Your task to perform on an android device: Turn off the flashlight Image 0: 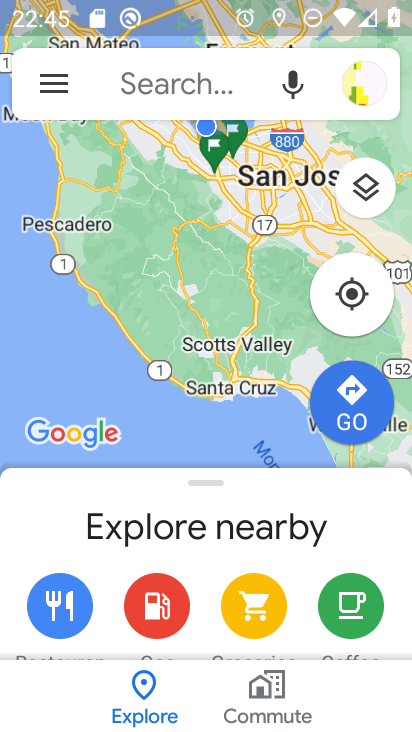
Step 0: drag from (171, 527) to (204, 152)
Your task to perform on an android device: Turn off the flashlight Image 1: 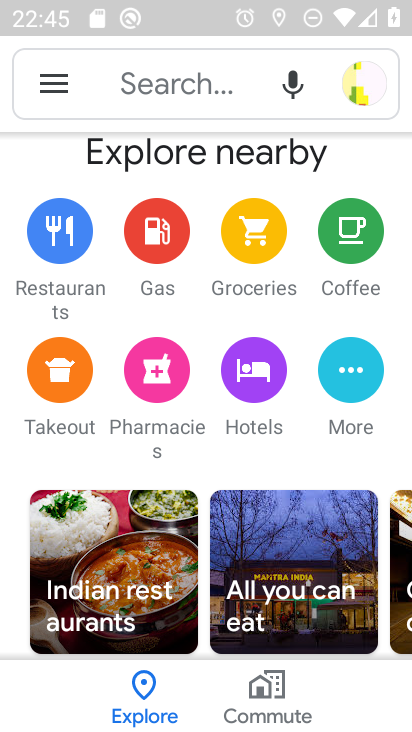
Step 1: press home button
Your task to perform on an android device: Turn off the flashlight Image 2: 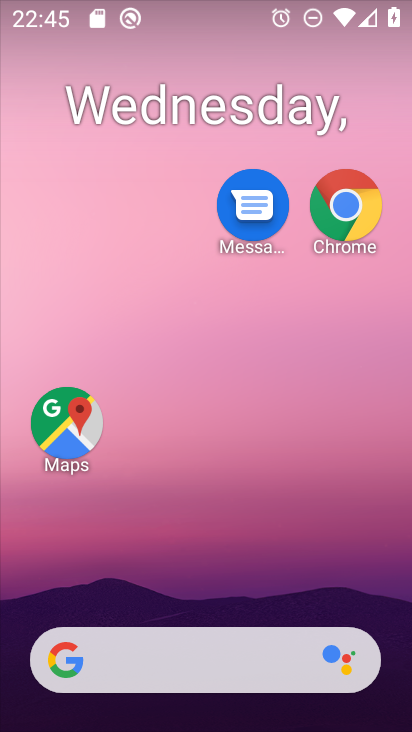
Step 2: drag from (216, 539) to (288, 125)
Your task to perform on an android device: Turn off the flashlight Image 3: 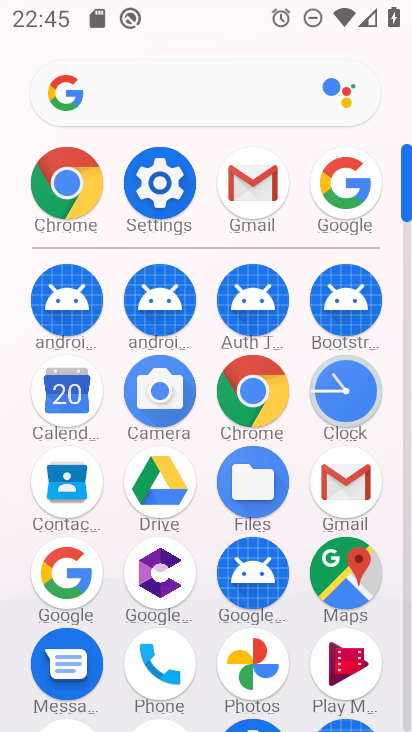
Step 3: click (158, 165)
Your task to perform on an android device: Turn off the flashlight Image 4: 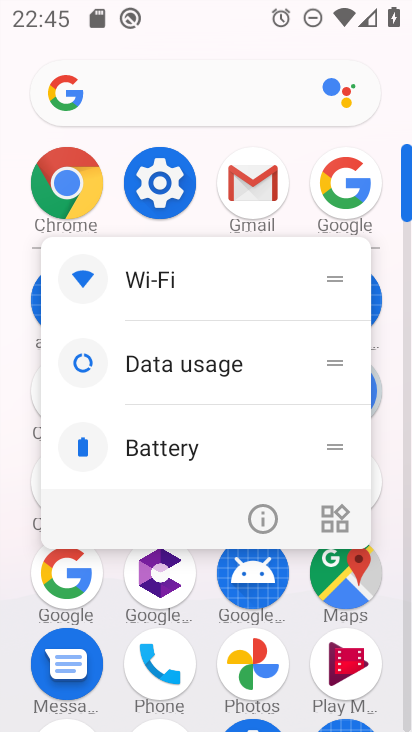
Step 4: click (274, 518)
Your task to perform on an android device: Turn off the flashlight Image 5: 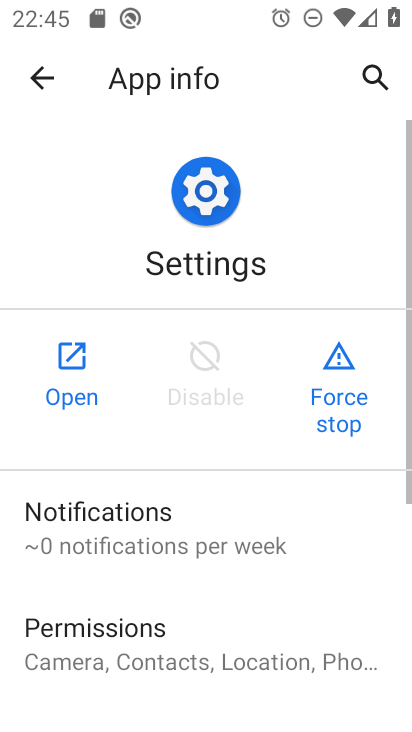
Step 5: click (87, 367)
Your task to perform on an android device: Turn off the flashlight Image 6: 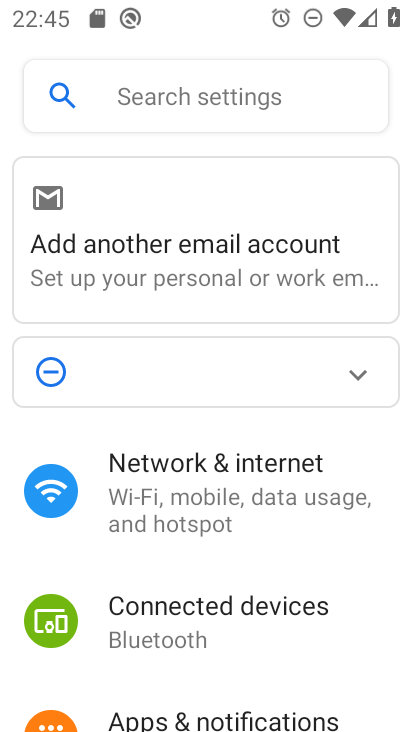
Step 6: click (166, 108)
Your task to perform on an android device: Turn off the flashlight Image 7: 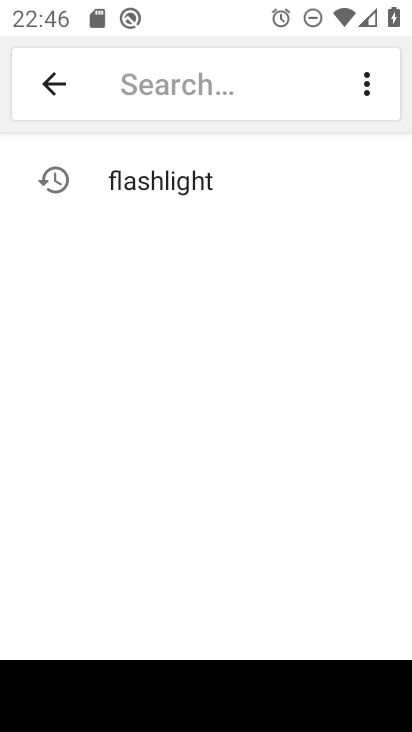
Step 7: type "flashlight"
Your task to perform on an android device: Turn off the flashlight Image 8: 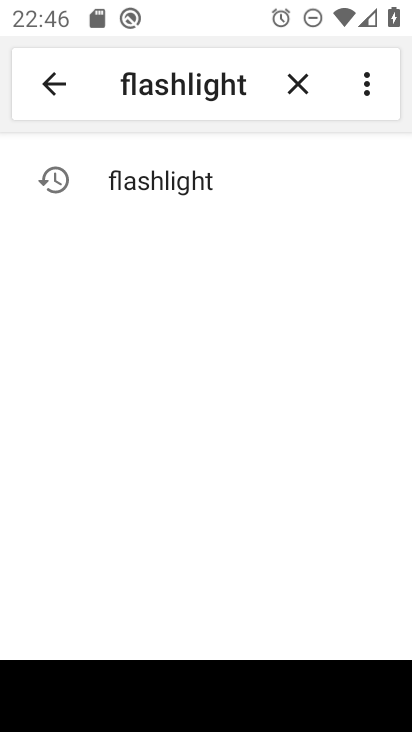
Step 8: click (227, 173)
Your task to perform on an android device: Turn off the flashlight Image 9: 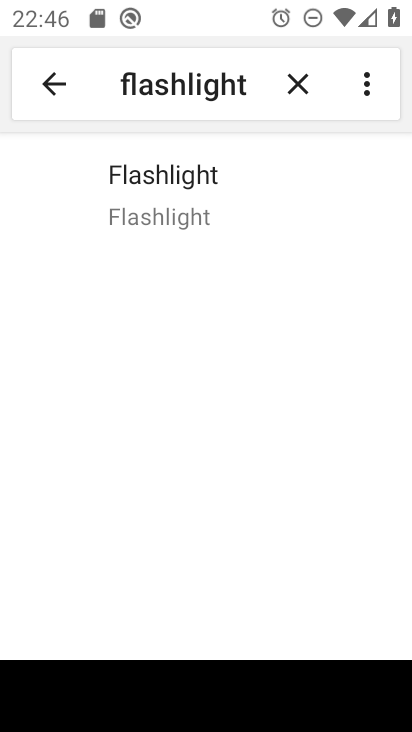
Step 9: task complete